Your task to perform on an android device: Open wifi settings Image 0: 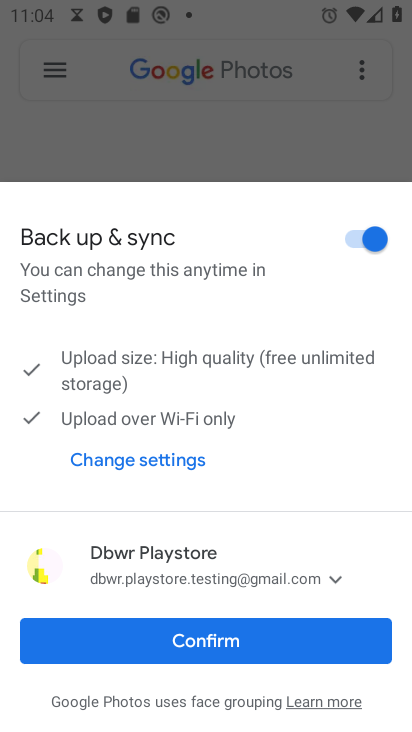
Step 0: press home button
Your task to perform on an android device: Open wifi settings Image 1: 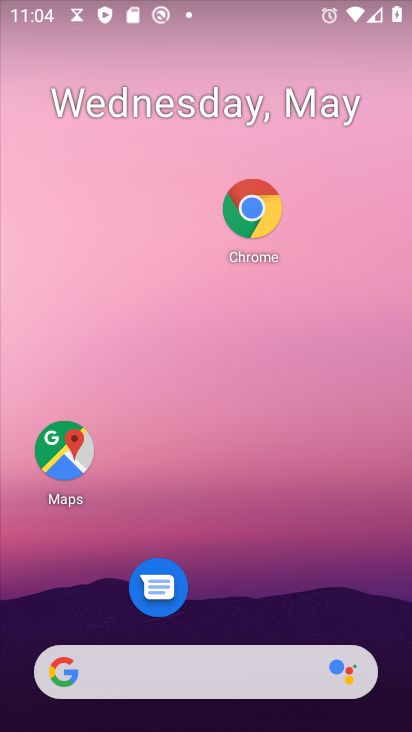
Step 1: drag from (191, 623) to (270, 81)
Your task to perform on an android device: Open wifi settings Image 2: 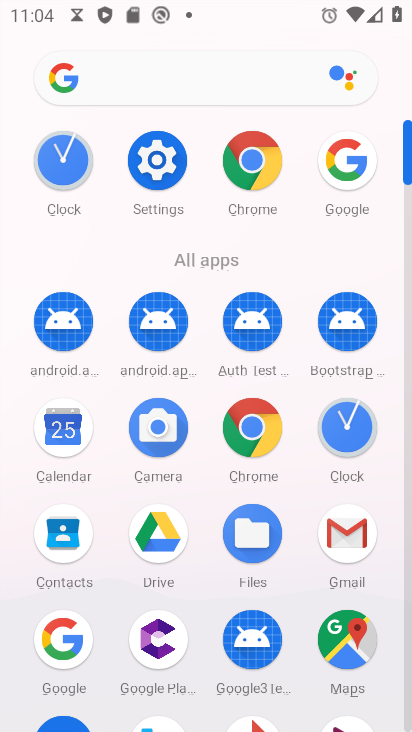
Step 2: click (164, 158)
Your task to perform on an android device: Open wifi settings Image 3: 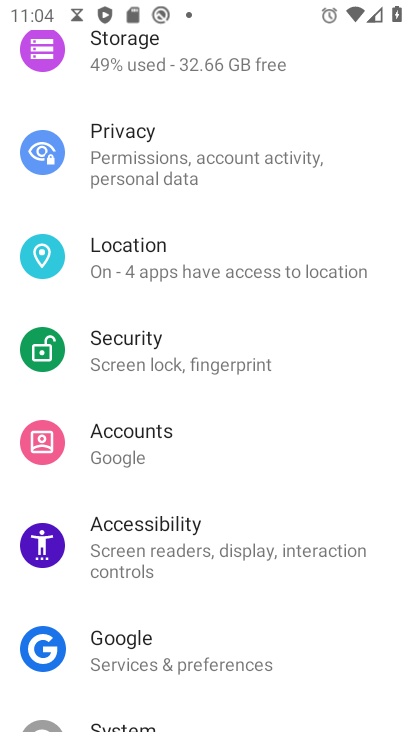
Step 3: drag from (161, 119) to (146, 659)
Your task to perform on an android device: Open wifi settings Image 4: 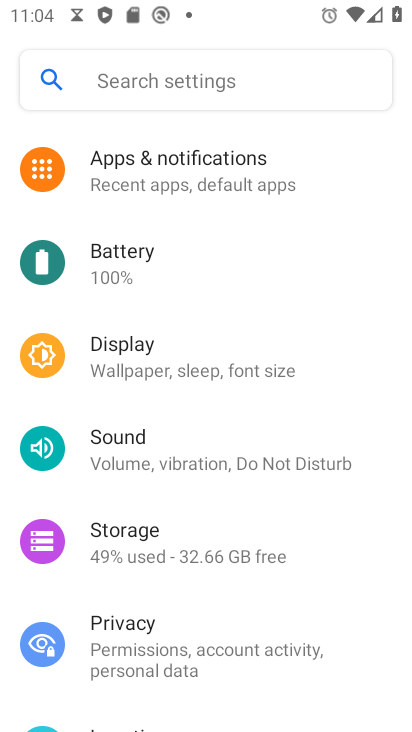
Step 4: drag from (178, 232) to (151, 722)
Your task to perform on an android device: Open wifi settings Image 5: 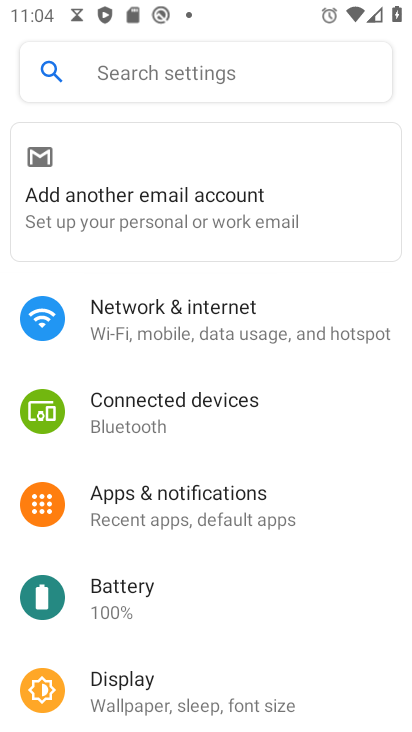
Step 5: click (184, 343)
Your task to perform on an android device: Open wifi settings Image 6: 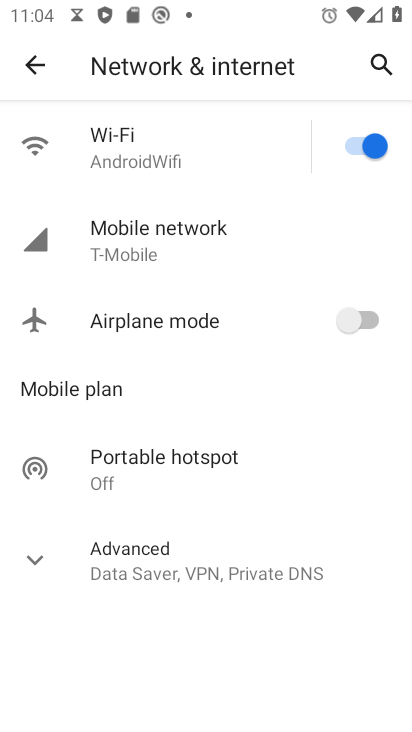
Step 6: click (114, 178)
Your task to perform on an android device: Open wifi settings Image 7: 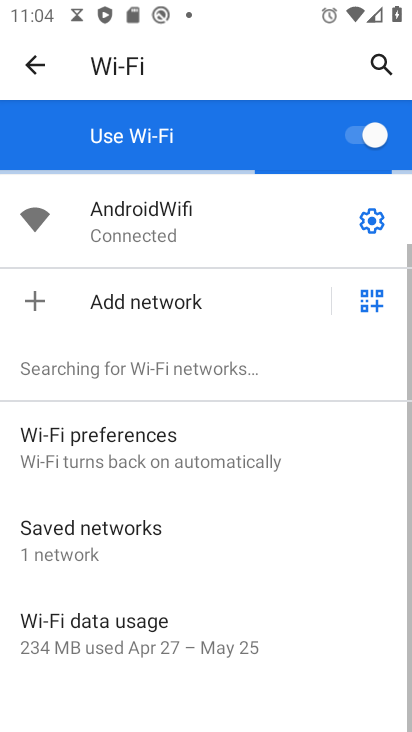
Step 7: task complete